Your task to perform on an android device: Open calendar and show me the third week of next month Image 0: 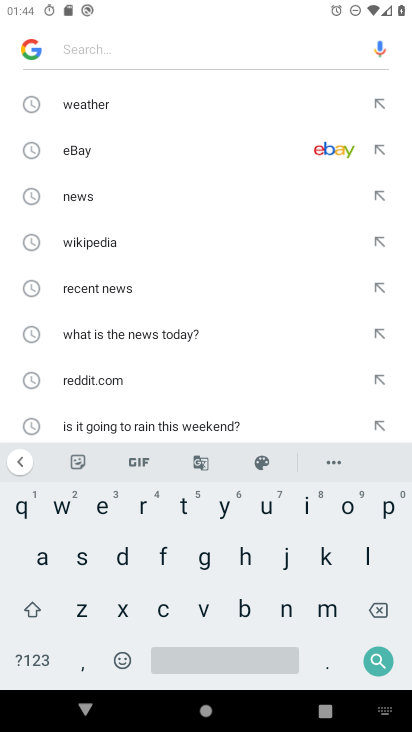
Step 0: press home button
Your task to perform on an android device: Open calendar and show me the third week of next month Image 1: 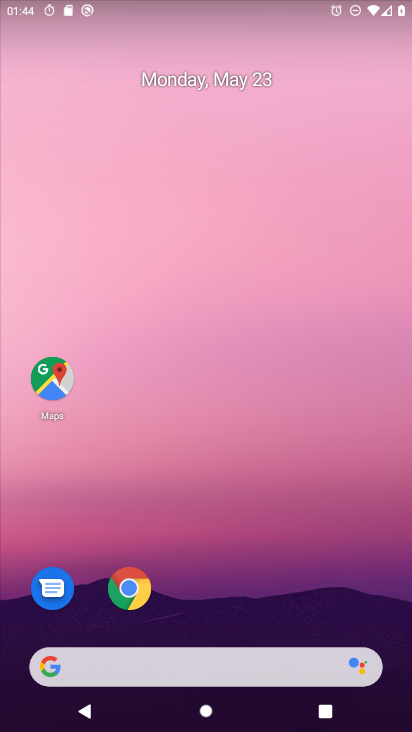
Step 1: drag from (312, 681) to (209, 111)
Your task to perform on an android device: Open calendar and show me the third week of next month Image 2: 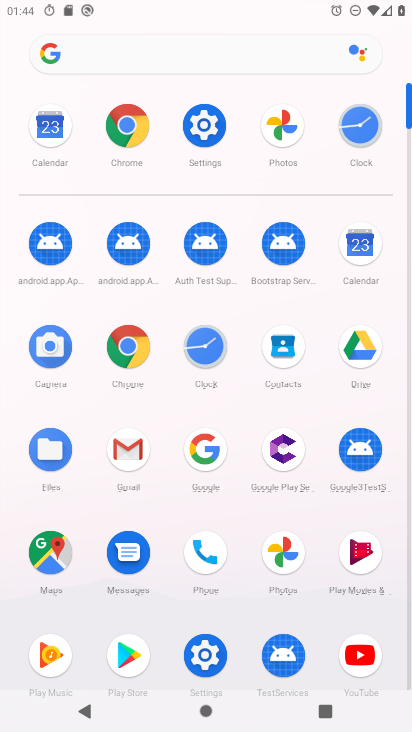
Step 2: click (341, 245)
Your task to perform on an android device: Open calendar and show me the third week of next month Image 3: 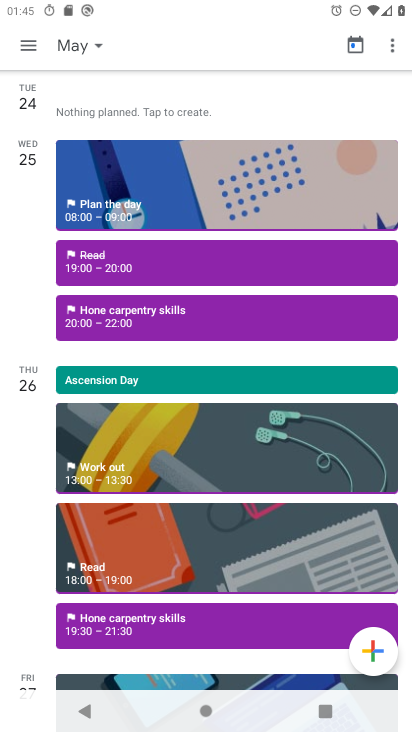
Step 3: click (32, 45)
Your task to perform on an android device: Open calendar and show me the third week of next month Image 4: 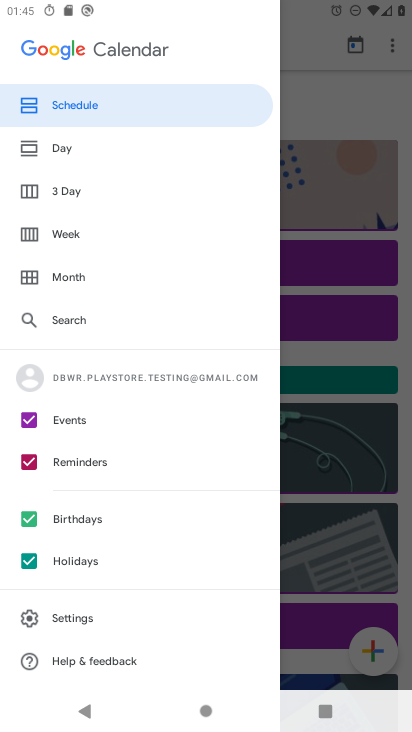
Step 4: click (70, 272)
Your task to perform on an android device: Open calendar and show me the third week of next month Image 5: 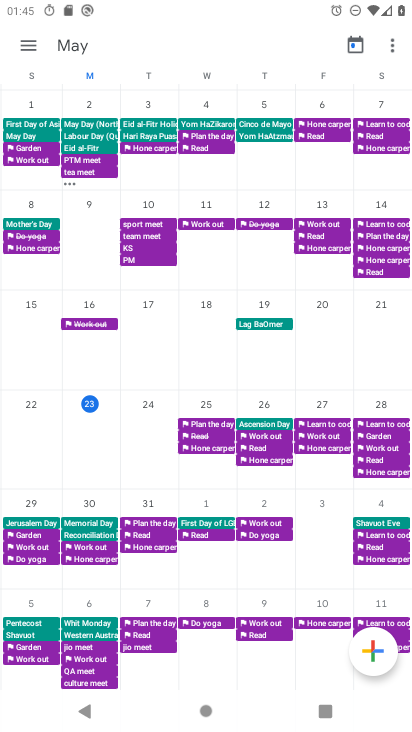
Step 5: drag from (375, 390) to (13, 320)
Your task to perform on an android device: Open calendar and show me the third week of next month Image 6: 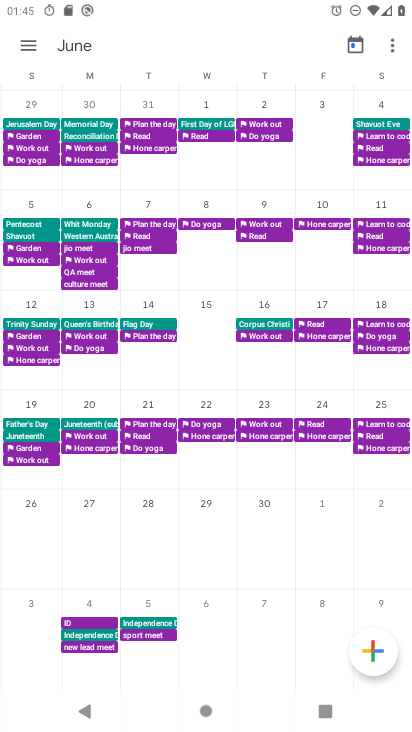
Step 6: click (18, 328)
Your task to perform on an android device: Open calendar and show me the third week of next month Image 7: 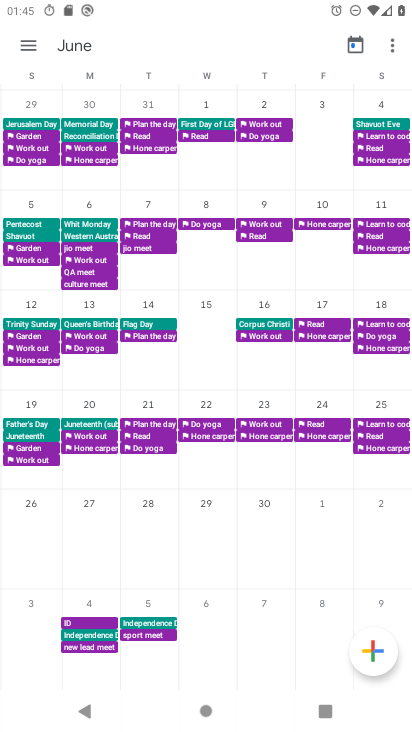
Step 7: click (83, 322)
Your task to perform on an android device: Open calendar and show me the third week of next month Image 8: 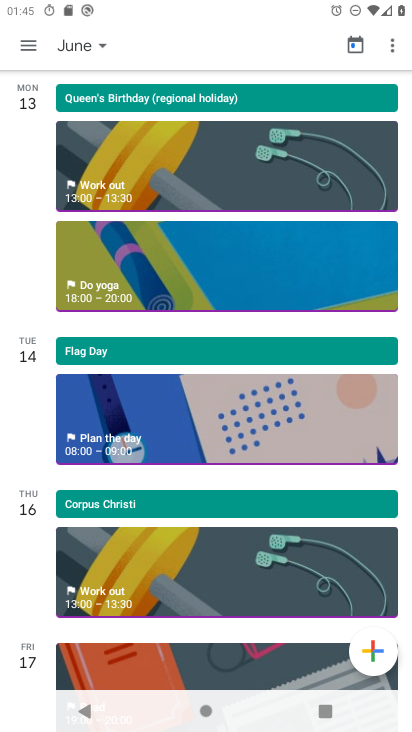
Step 8: task complete